Your task to perform on an android device: remove spam from my inbox in the gmail app Image 0: 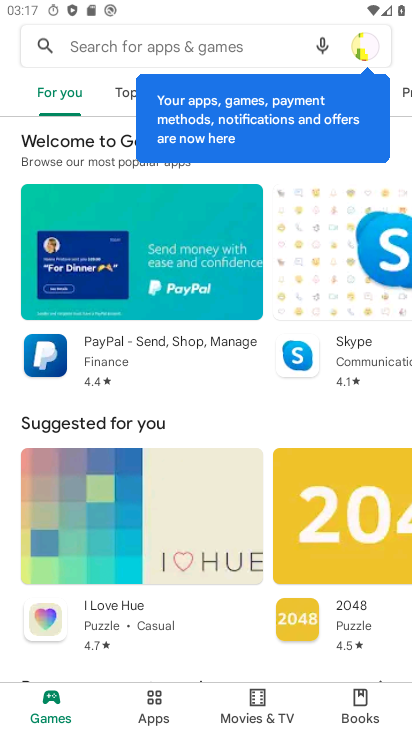
Step 0: press home button
Your task to perform on an android device: remove spam from my inbox in the gmail app Image 1: 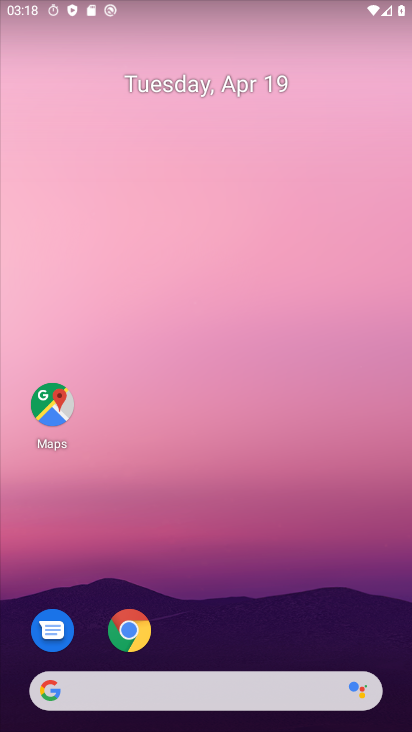
Step 1: drag from (283, 639) to (284, 105)
Your task to perform on an android device: remove spam from my inbox in the gmail app Image 2: 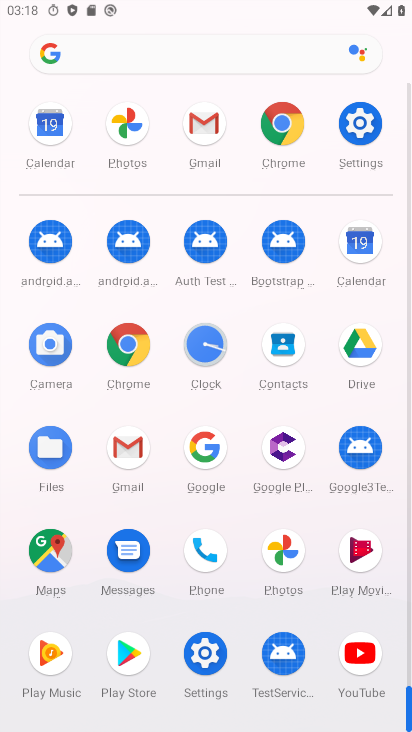
Step 2: click (211, 134)
Your task to perform on an android device: remove spam from my inbox in the gmail app Image 3: 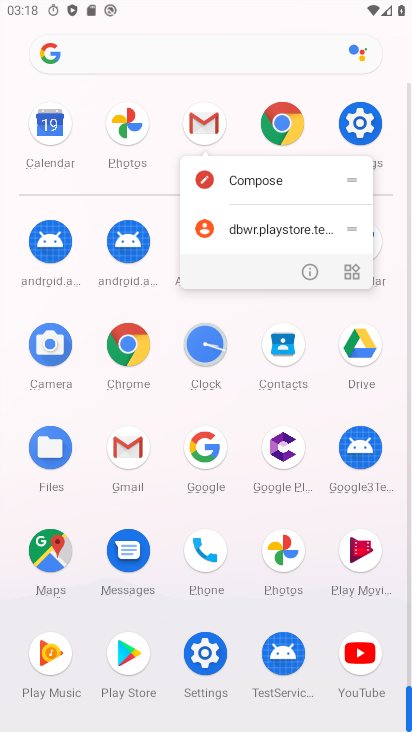
Step 3: click (202, 129)
Your task to perform on an android device: remove spam from my inbox in the gmail app Image 4: 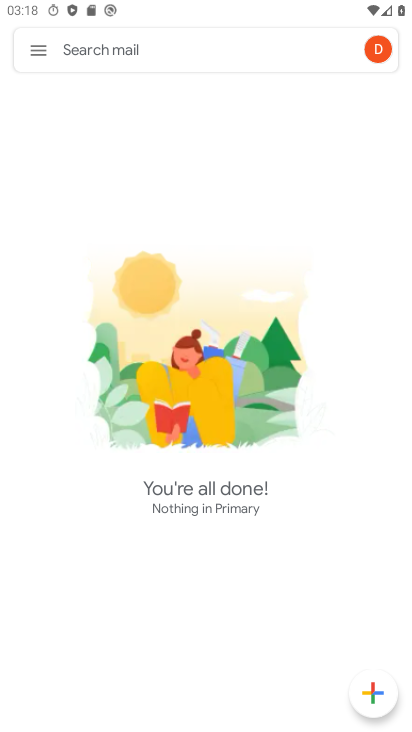
Step 4: click (35, 48)
Your task to perform on an android device: remove spam from my inbox in the gmail app Image 5: 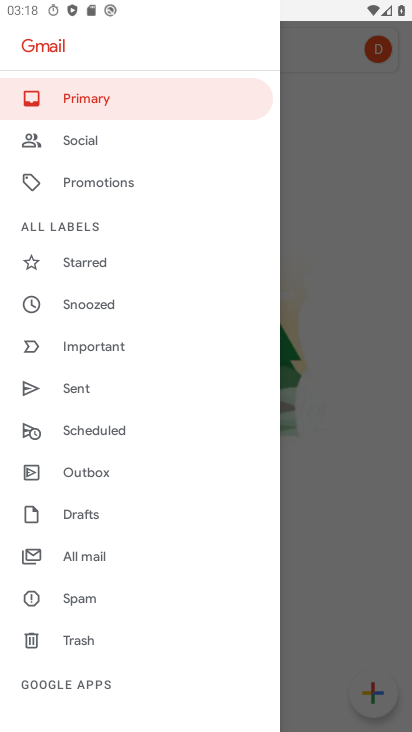
Step 5: click (80, 597)
Your task to perform on an android device: remove spam from my inbox in the gmail app Image 6: 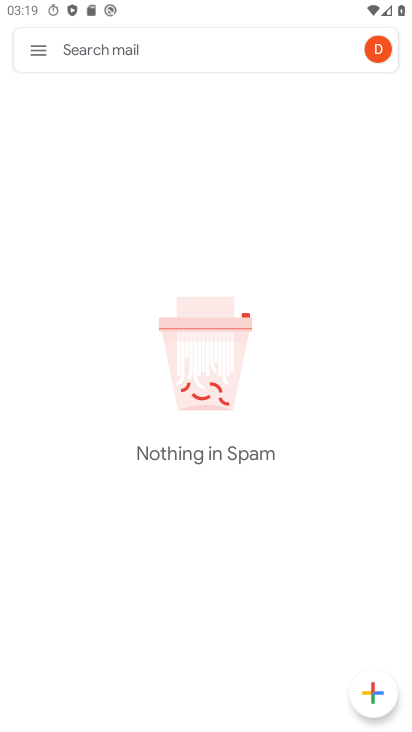
Step 6: task complete